Your task to perform on an android device: turn on translation in the chrome app Image 0: 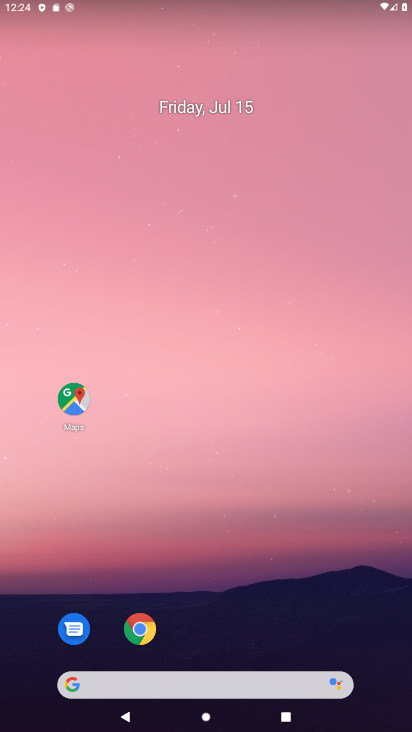
Step 0: drag from (224, 642) to (283, 162)
Your task to perform on an android device: turn on translation in the chrome app Image 1: 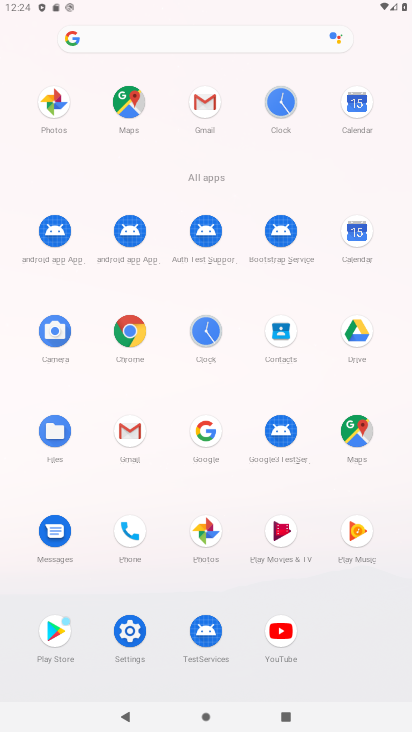
Step 1: click (139, 340)
Your task to perform on an android device: turn on translation in the chrome app Image 2: 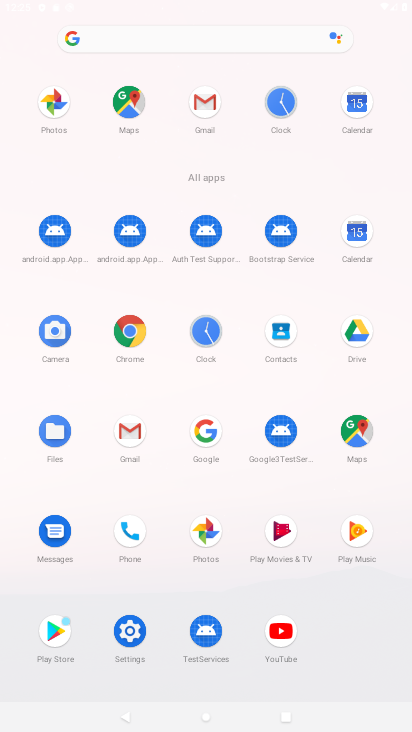
Step 2: click (131, 327)
Your task to perform on an android device: turn on translation in the chrome app Image 3: 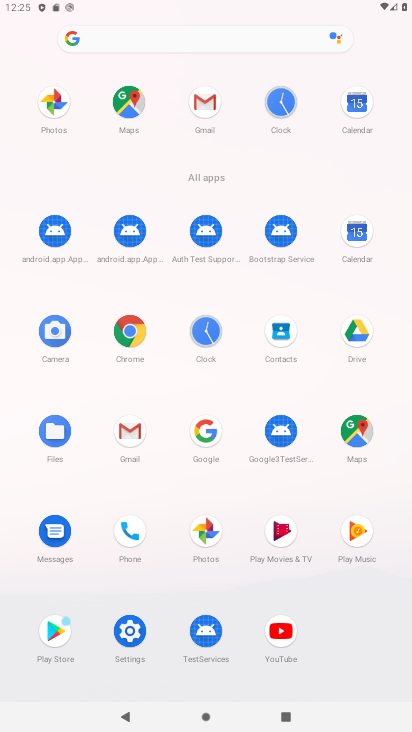
Step 3: click (136, 334)
Your task to perform on an android device: turn on translation in the chrome app Image 4: 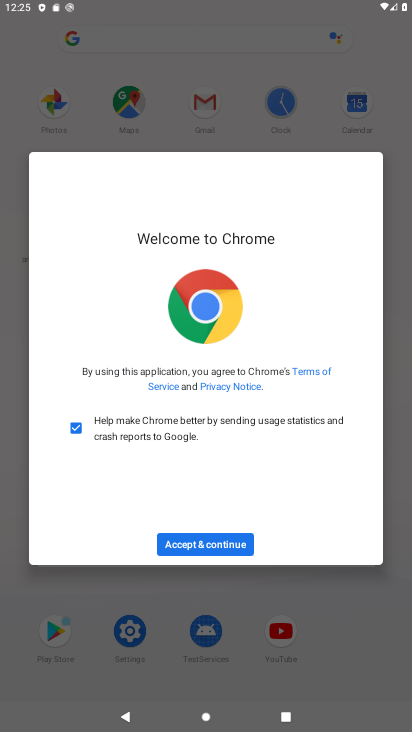
Step 4: click (228, 537)
Your task to perform on an android device: turn on translation in the chrome app Image 5: 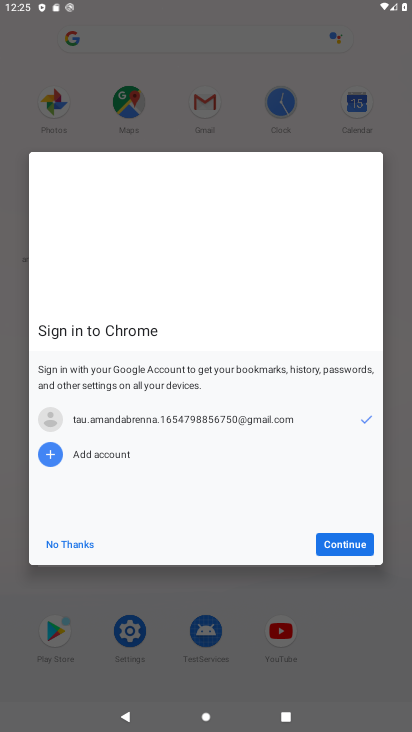
Step 5: click (348, 541)
Your task to perform on an android device: turn on translation in the chrome app Image 6: 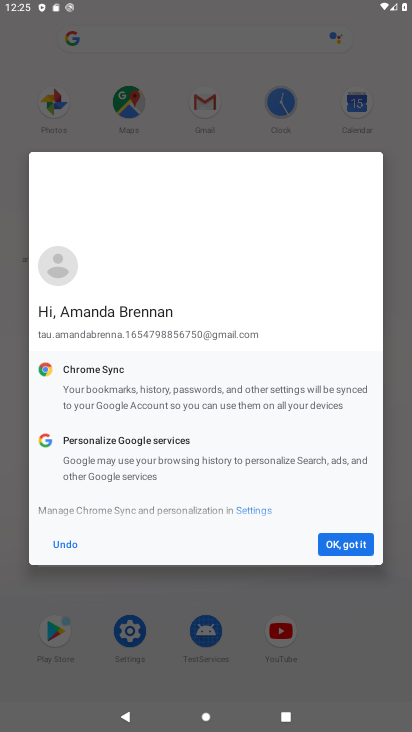
Step 6: click (350, 552)
Your task to perform on an android device: turn on translation in the chrome app Image 7: 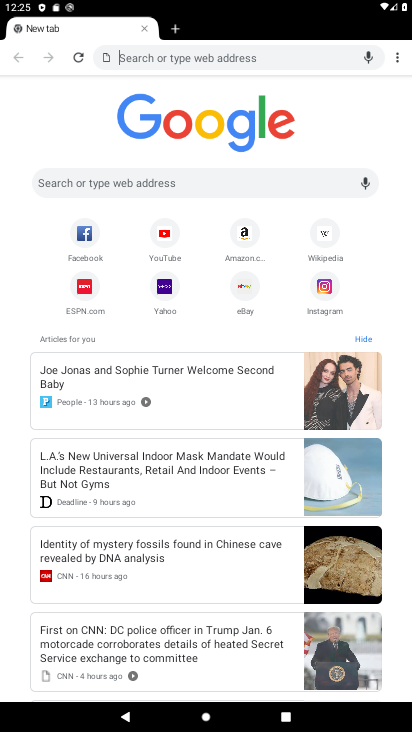
Step 7: drag from (392, 53) to (317, 255)
Your task to perform on an android device: turn on translation in the chrome app Image 8: 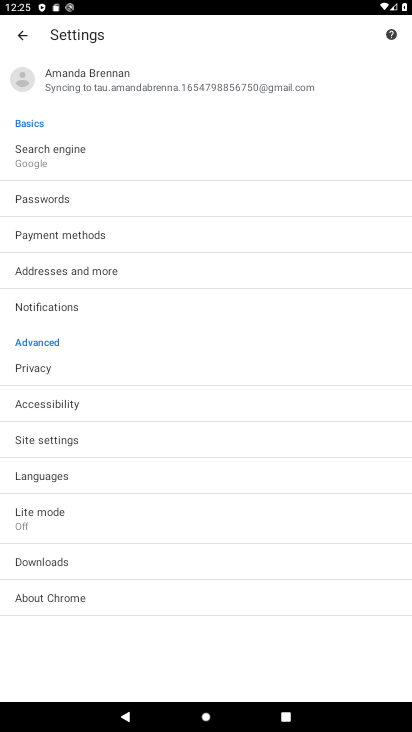
Step 8: click (102, 472)
Your task to perform on an android device: turn on translation in the chrome app Image 9: 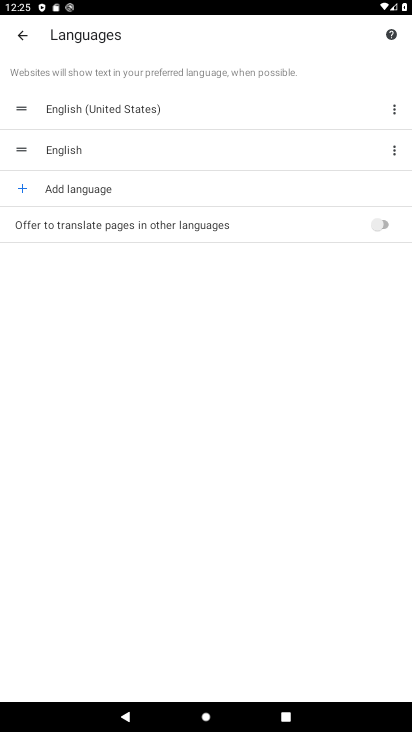
Step 9: click (401, 221)
Your task to perform on an android device: turn on translation in the chrome app Image 10: 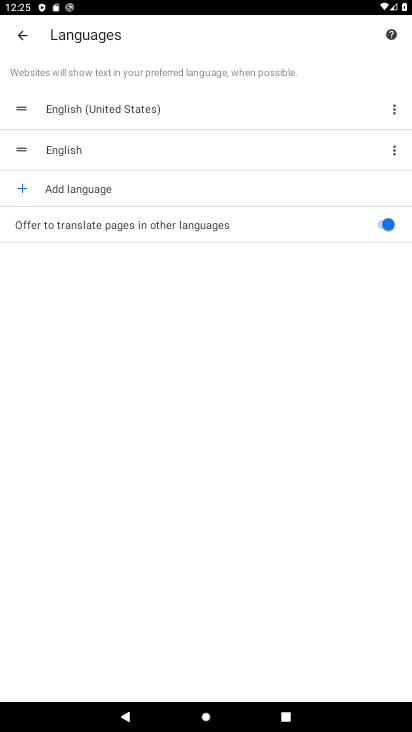
Step 10: task complete